Your task to perform on an android device: Search for sushi restaurants on Maps Image 0: 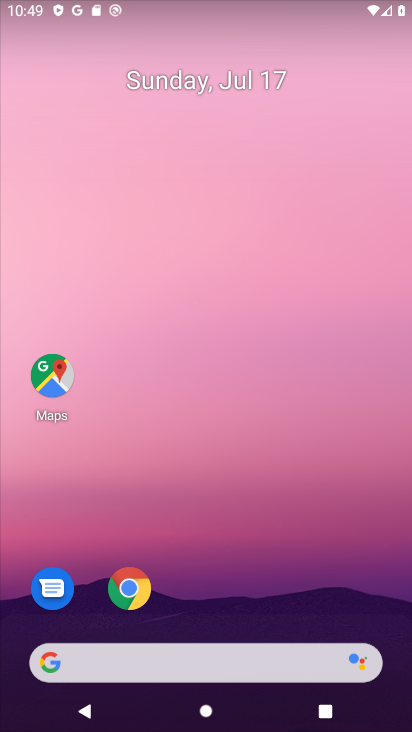
Step 0: click (49, 369)
Your task to perform on an android device: Search for sushi restaurants on Maps Image 1: 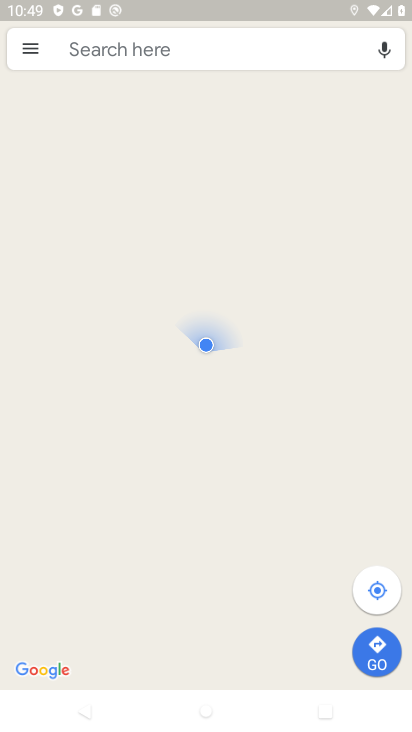
Step 1: click (80, 43)
Your task to perform on an android device: Search for sushi restaurants on Maps Image 2: 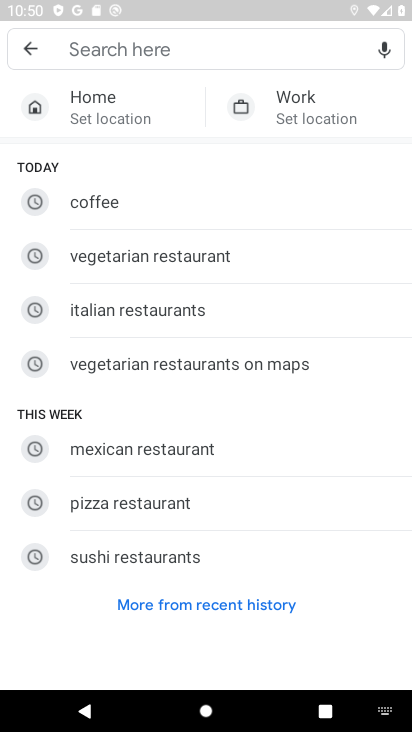
Step 2: click (156, 558)
Your task to perform on an android device: Search for sushi restaurants on Maps Image 3: 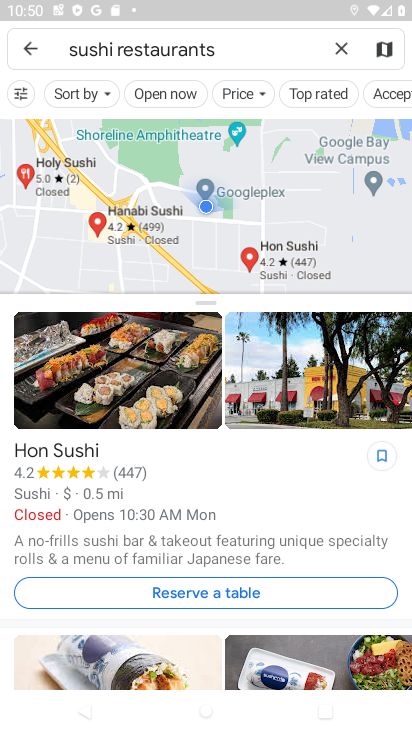
Step 3: task complete